Your task to perform on an android device: turn smart compose on in the gmail app Image 0: 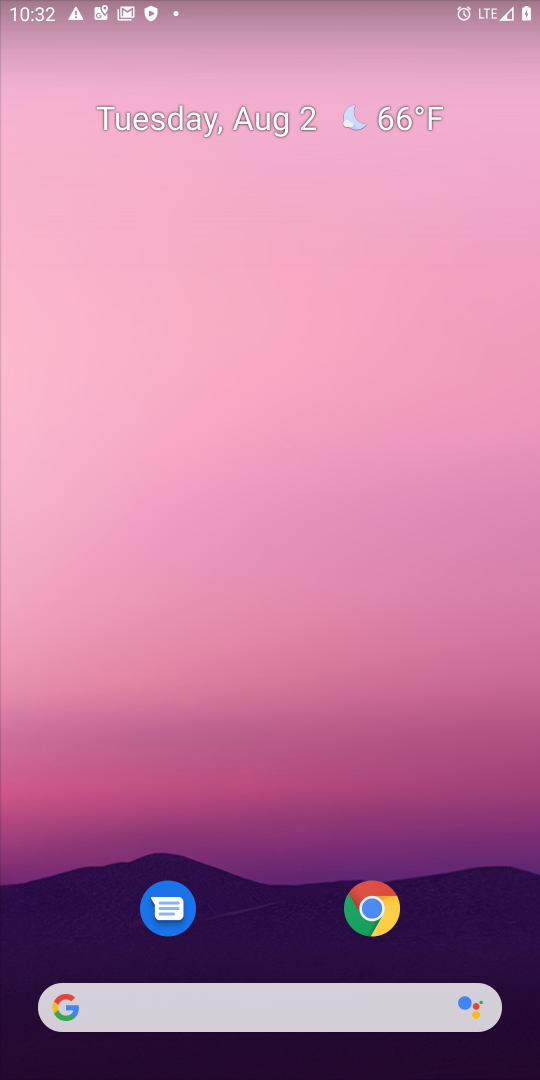
Step 0: drag from (304, 696) to (304, 144)
Your task to perform on an android device: turn smart compose on in the gmail app Image 1: 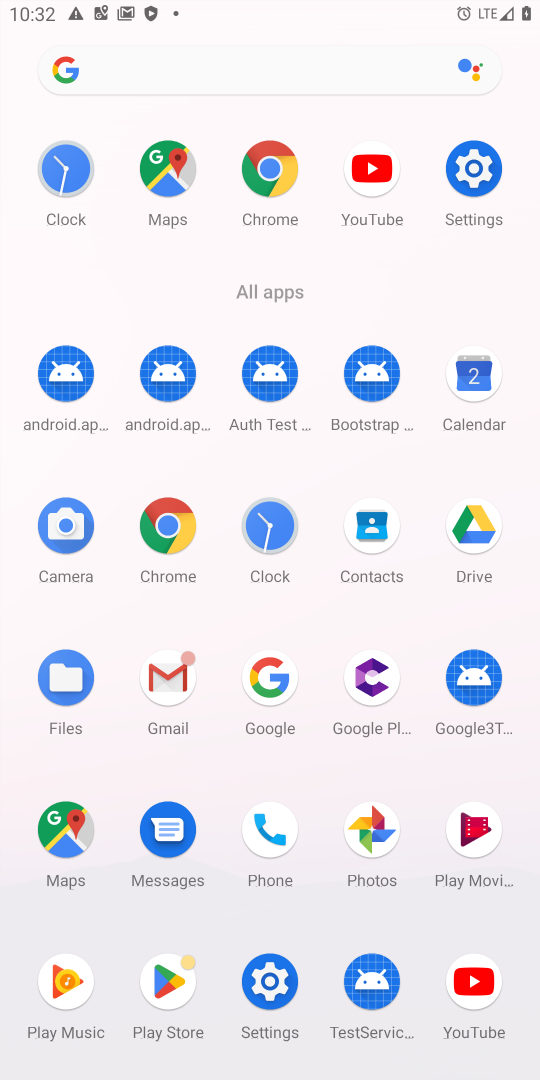
Step 1: click (159, 686)
Your task to perform on an android device: turn smart compose on in the gmail app Image 2: 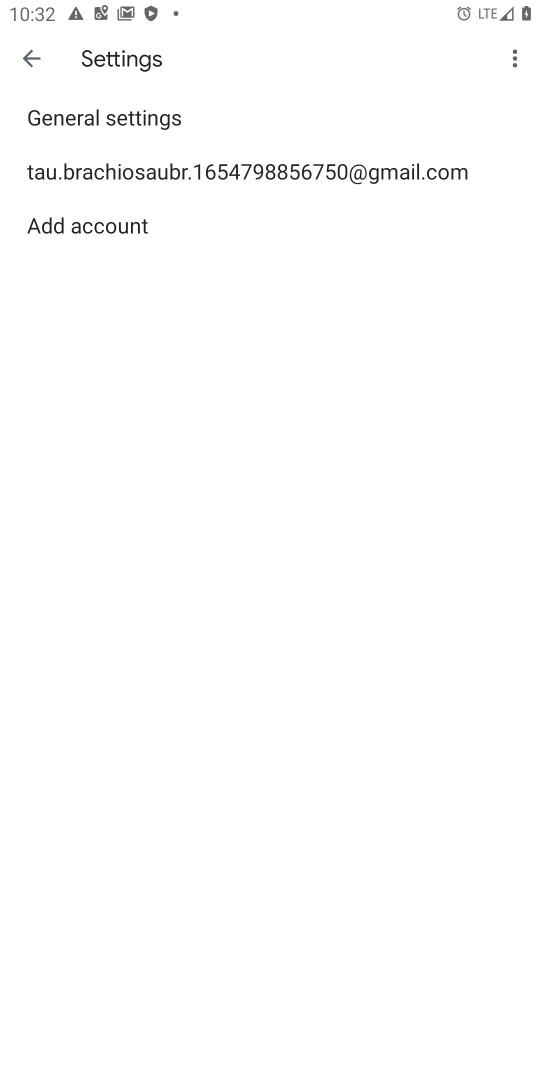
Step 2: click (221, 181)
Your task to perform on an android device: turn smart compose on in the gmail app Image 3: 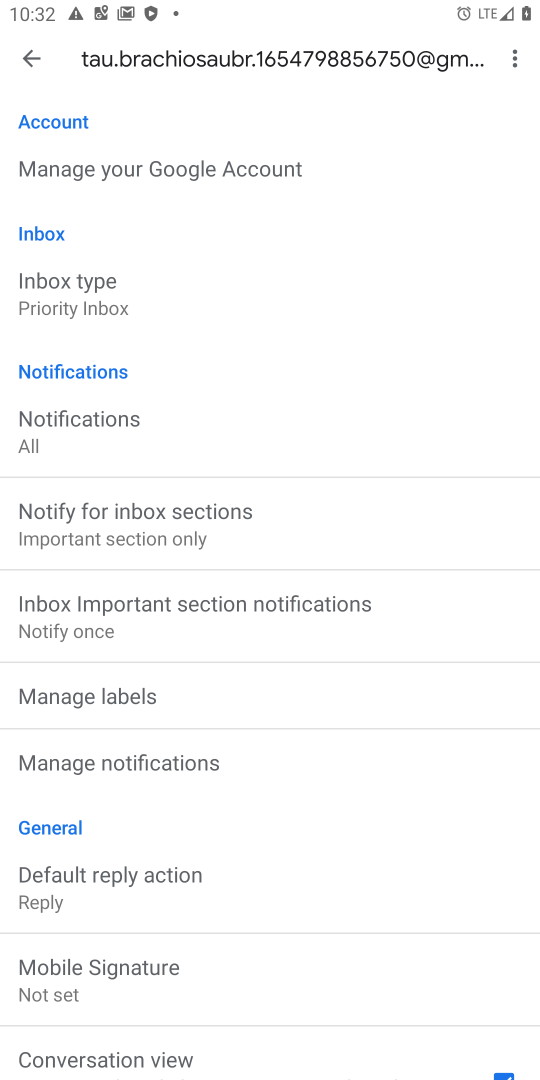
Step 3: task complete